Your task to perform on an android device: Open accessibility settings Image 0: 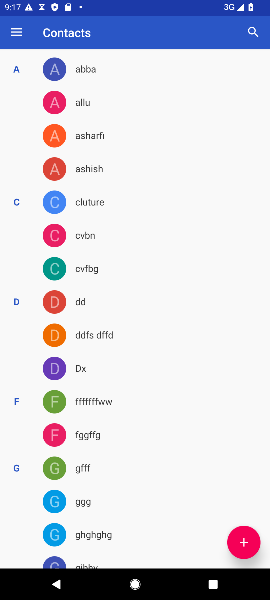
Step 0: press back button
Your task to perform on an android device: Open accessibility settings Image 1: 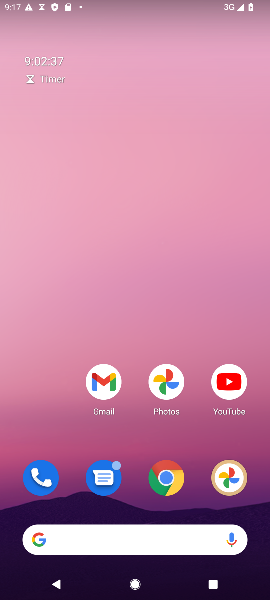
Step 1: drag from (204, 354) to (151, 37)
Your task to perform on an android device: Open accessibility settings Image 2: 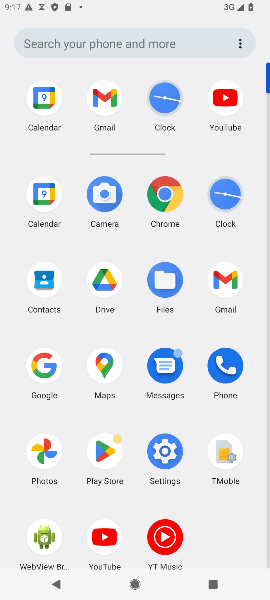
Step 2: click (175, 453)
Your task to perform on an android device: Open accessibility settings Image 3: 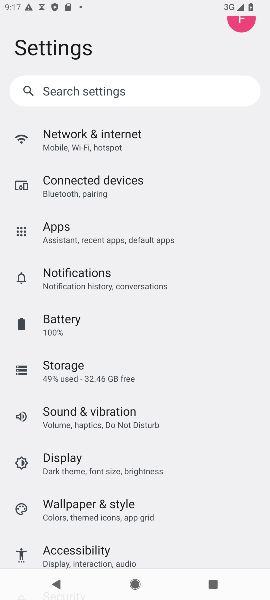
Step 3: click (127, 555)
Your task to perform on an android device: Open accessibility settings Image 4: 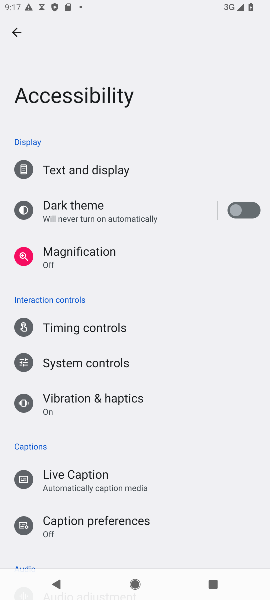
Step 4: task complete